Your task to perform on an android device: Go to settings Image 0: 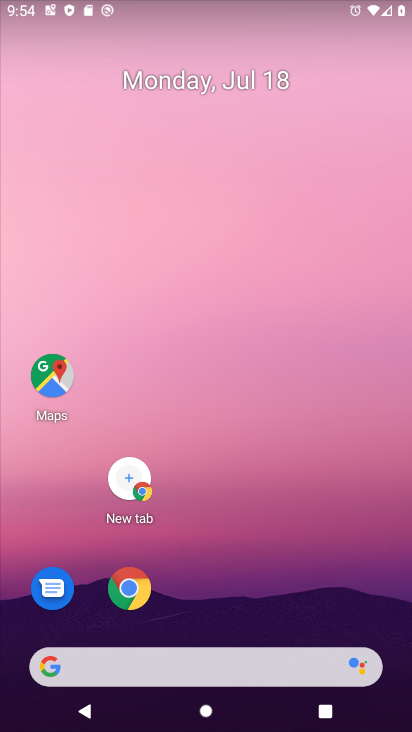
Step 0: drag from (195, 597) to (205, 133)
Your task to perform on an android device: Go to settings Image 1: 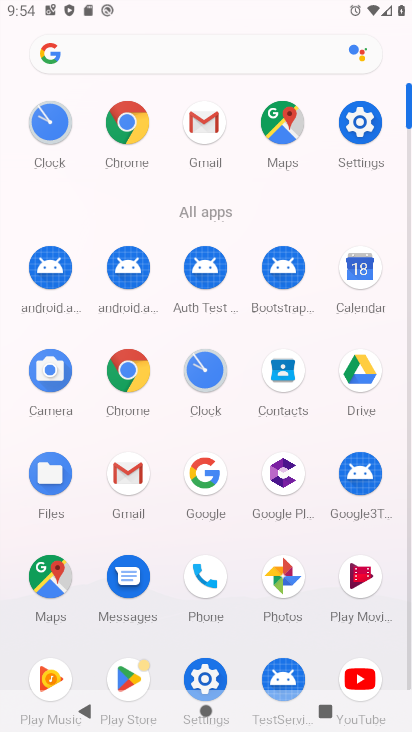
Step 1: click (373, 133)
Your task to perform on an android device: Go to settings Image 2: 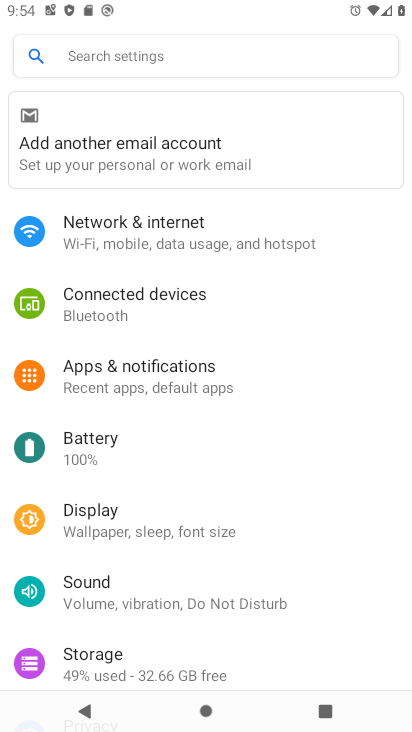
Step 2: task complete